Your task to perform on an android device: uninstall "Google Photos" Image 0: 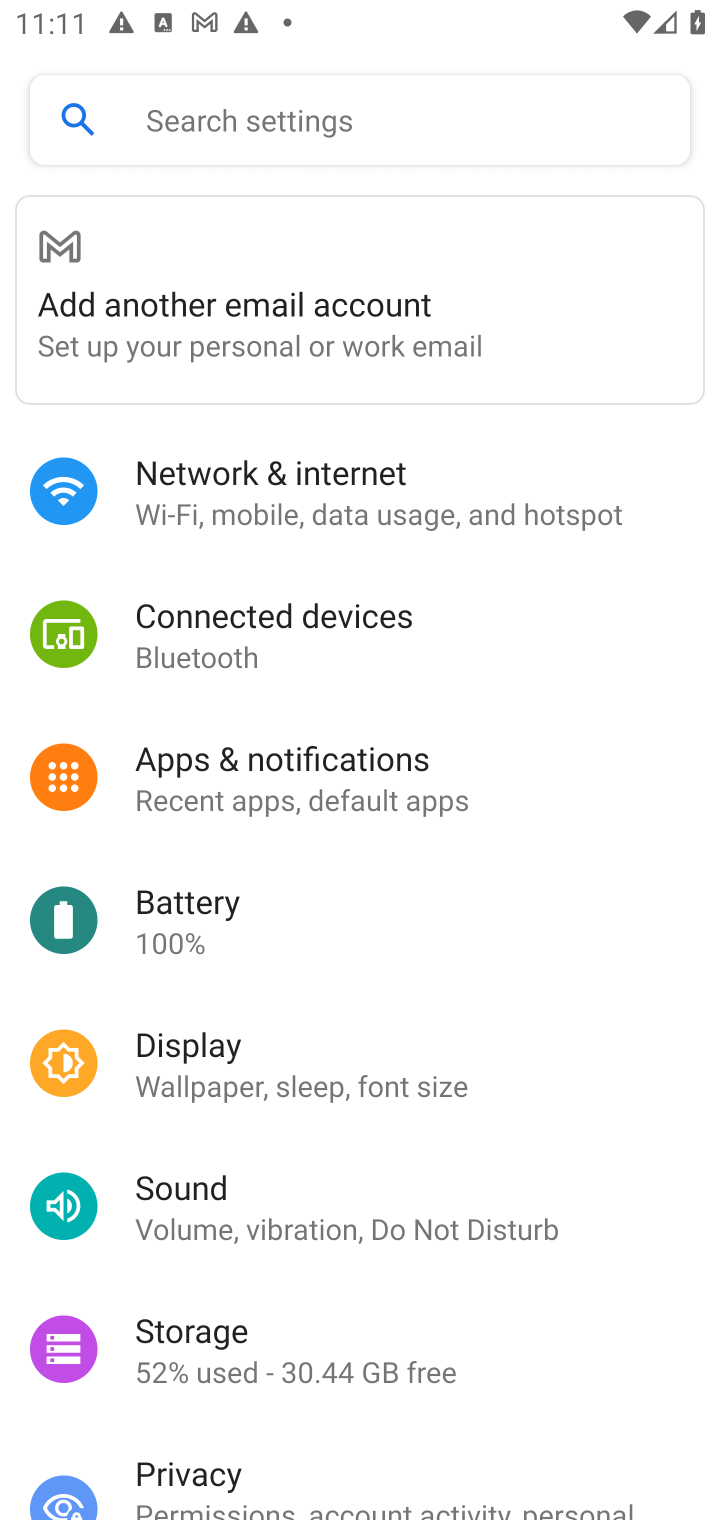
Step 0: press home button
Your task to perform on an android device: uninstall "Google Photos" Image 1: 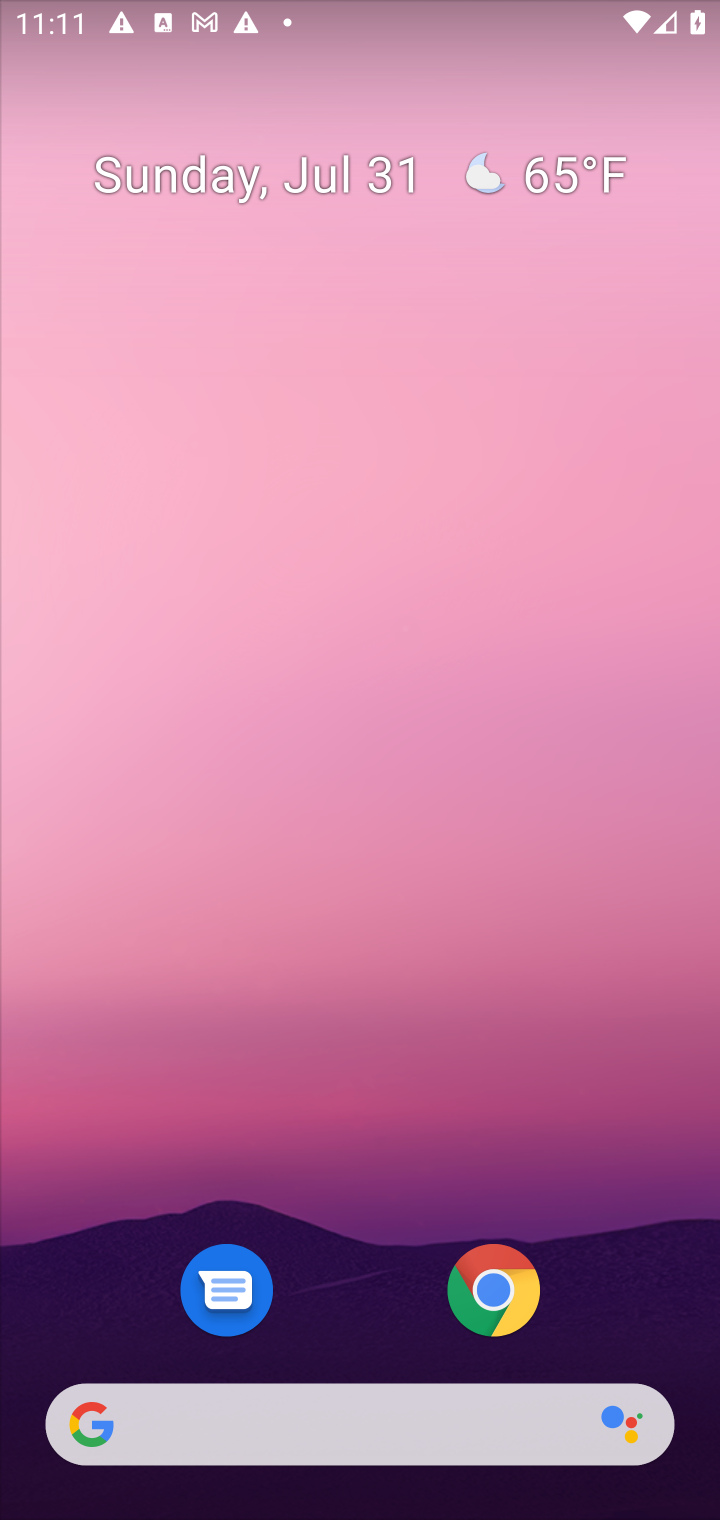
Step 1: drag from (602, 1139) to (596, 181)
Your task to perform on an android device: uninstall "Google Photos" Image 2: 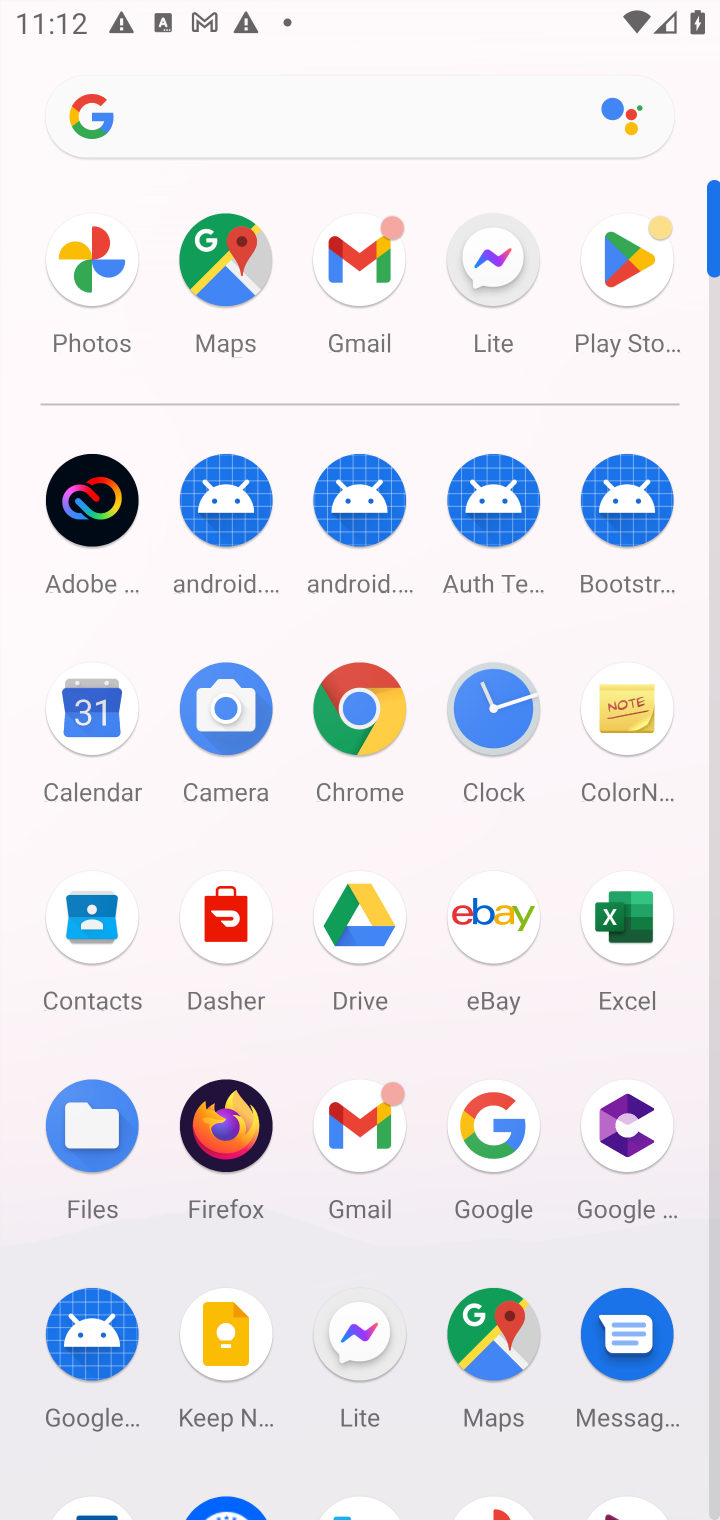
Step 2: click (628, 265)
Your task to perform on an android device: uninstall "Google Photos" Image 3: 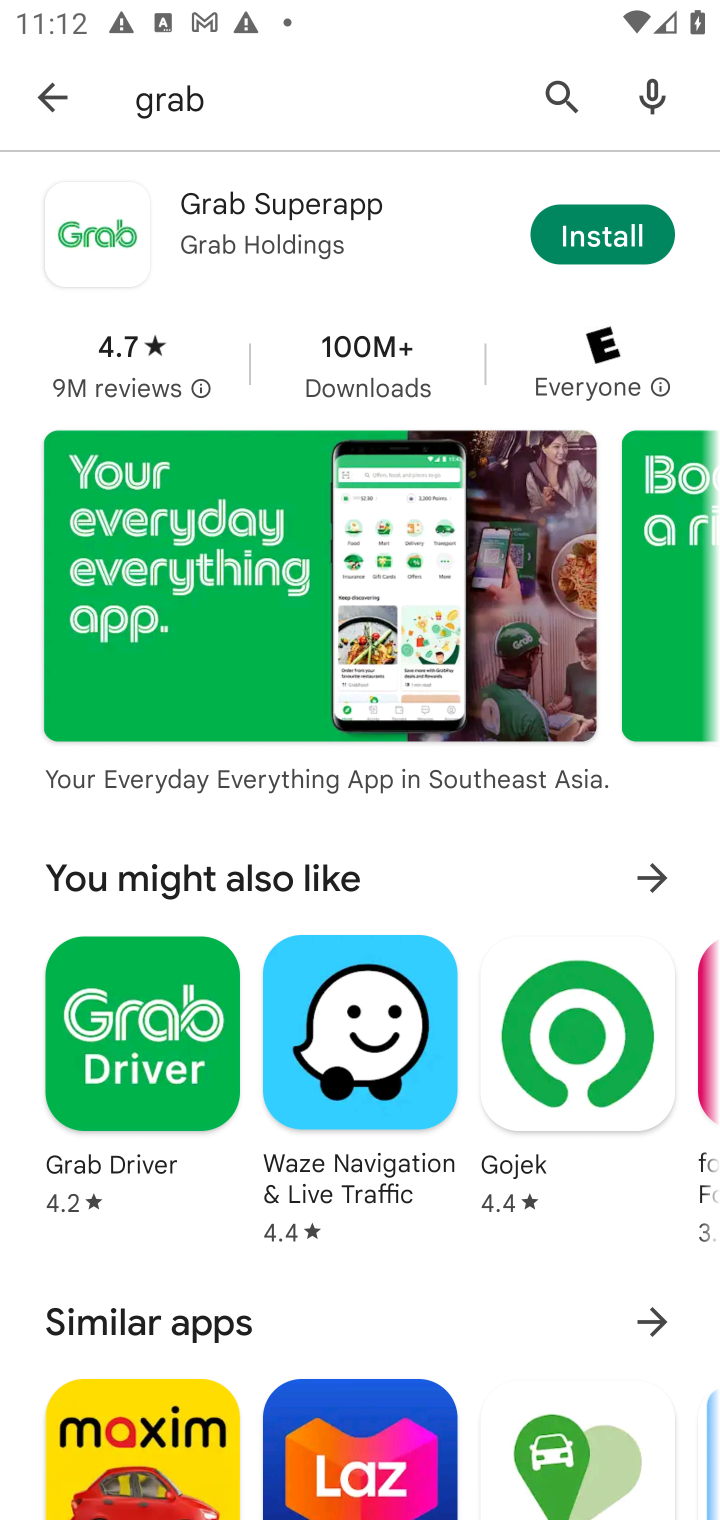
Step 3: click (541, 91)
Your task to perform on an android device: uninstall "Google Photos" Image 4: 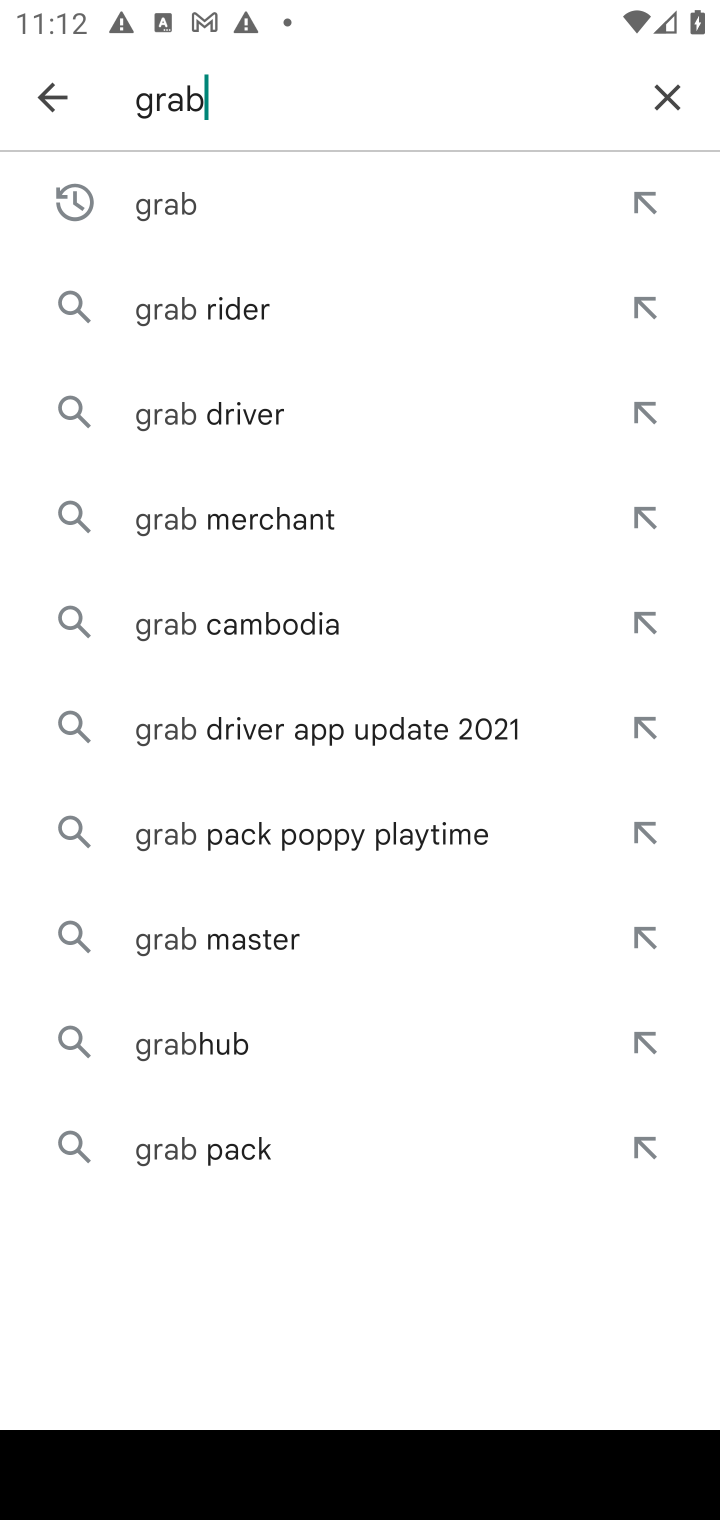
Step 4: click (669, 102)
Your task to perform on an android device: uninstall "Google Photos" Image 5: 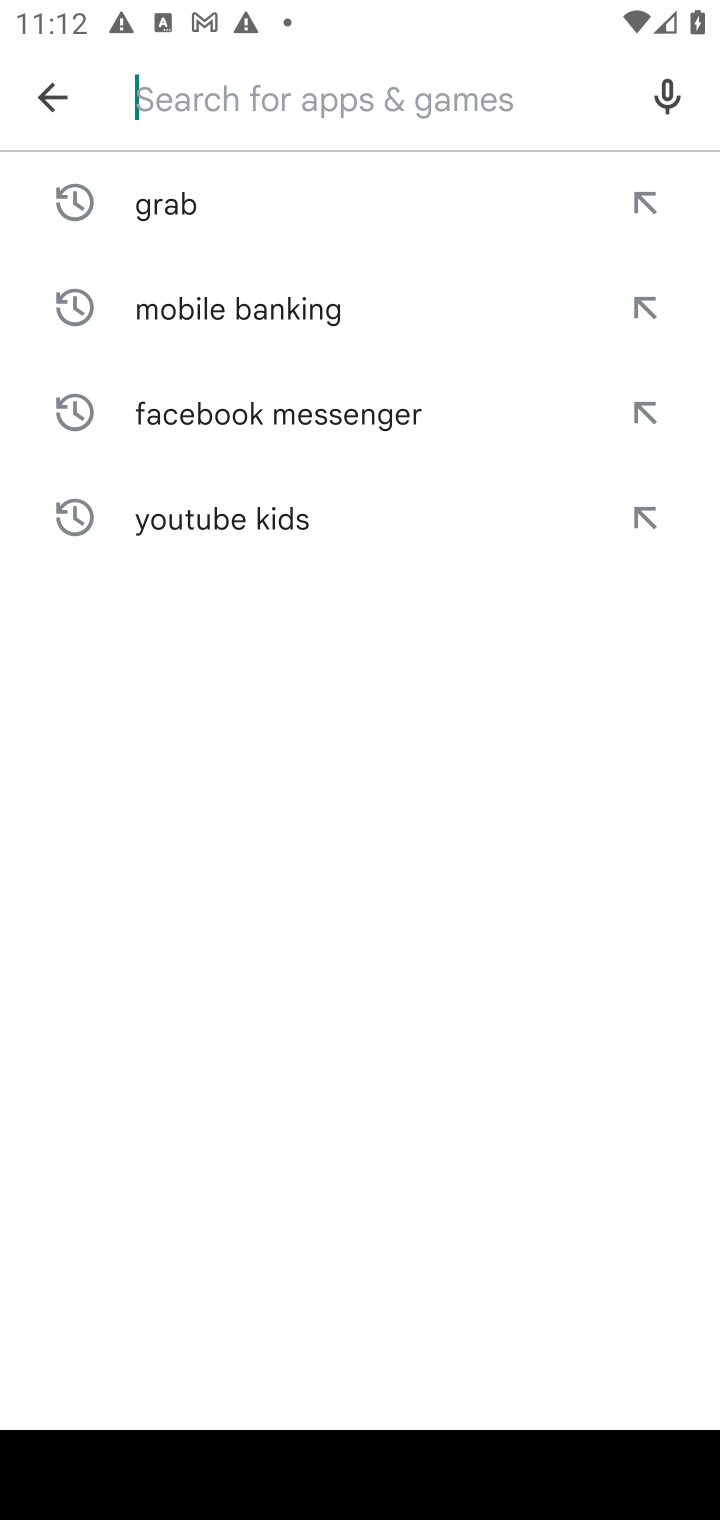
Step 5: type "google photos"
Your task to perform on an android device: uninstall "Google Photos" Image 6: 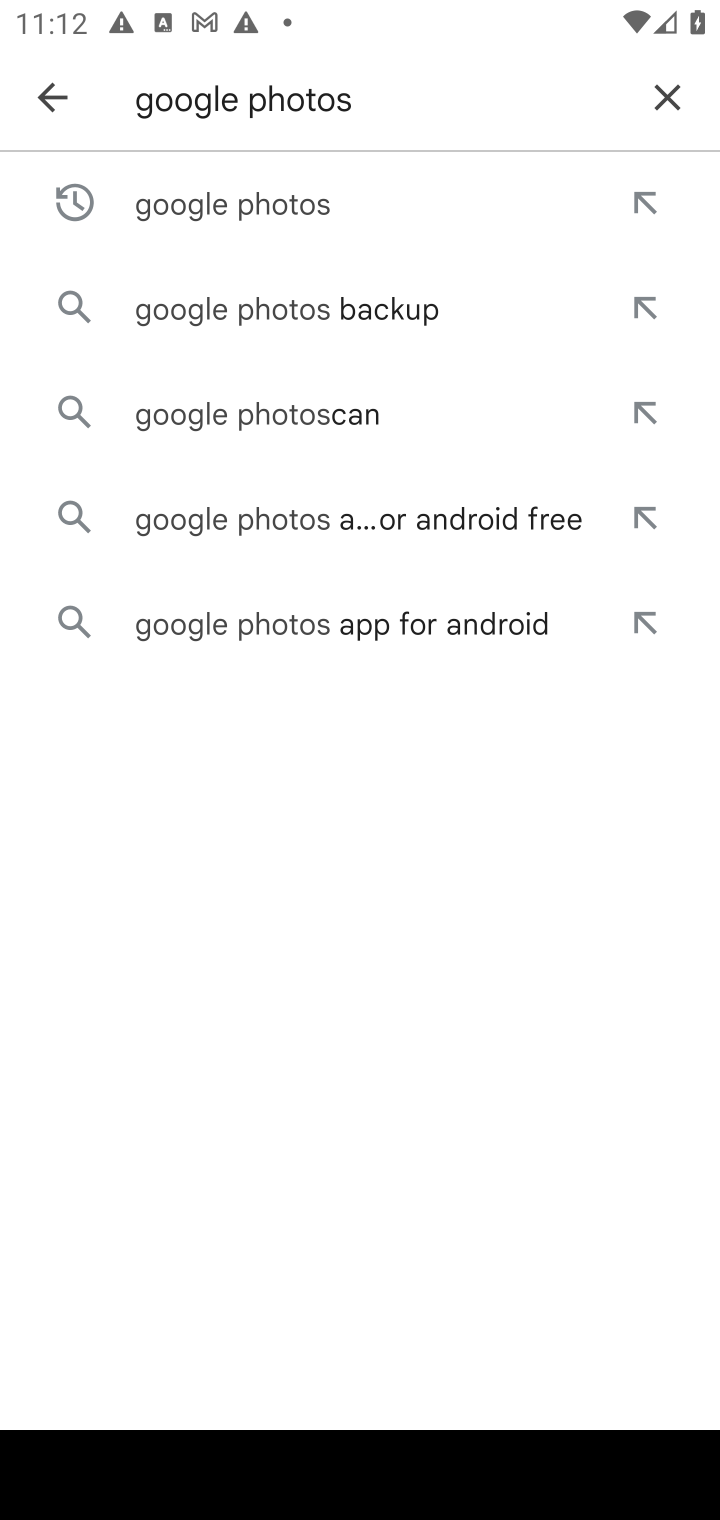
Step 6: click (294, 204)
Your task to perform on an android device: uninstall "Google Photos" Image 7: 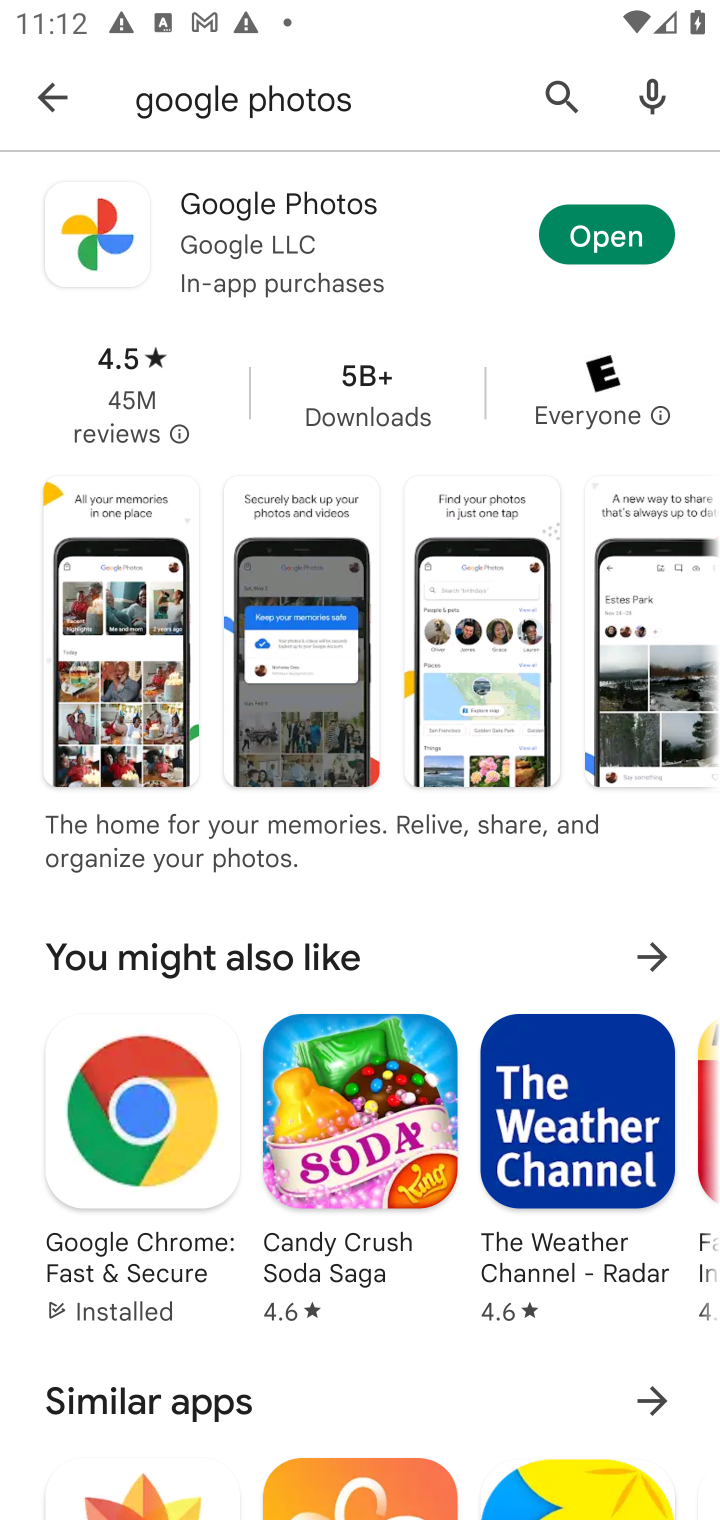
Step 7: task complete